Your task to perform on an android device: delete the emails in spam in the gmail app Image 0: 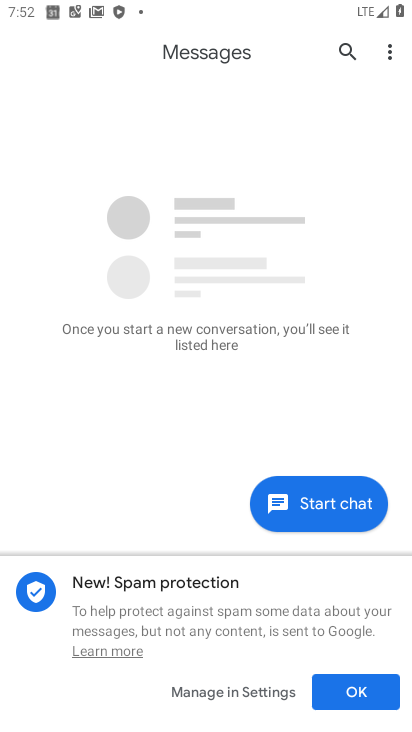
Step 0: press home button
Your task to perform on an android device: delete the emails in spam in the gmail app Image 1: 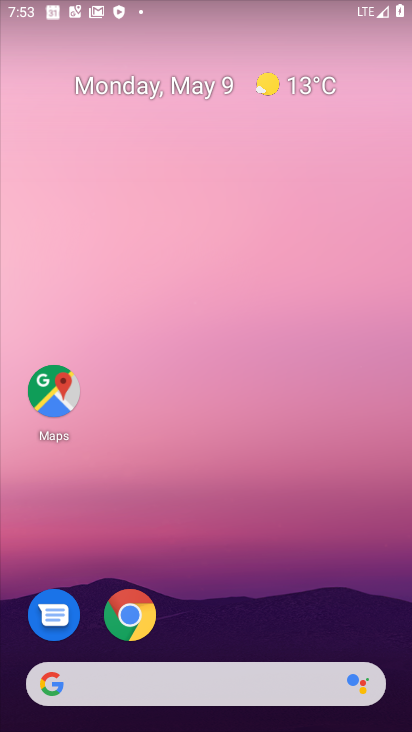
Step 1: drag from (228, 636) to (207, 3)
Your task to perform on an android device: delete the emails in spam in the gmail app Image 2: 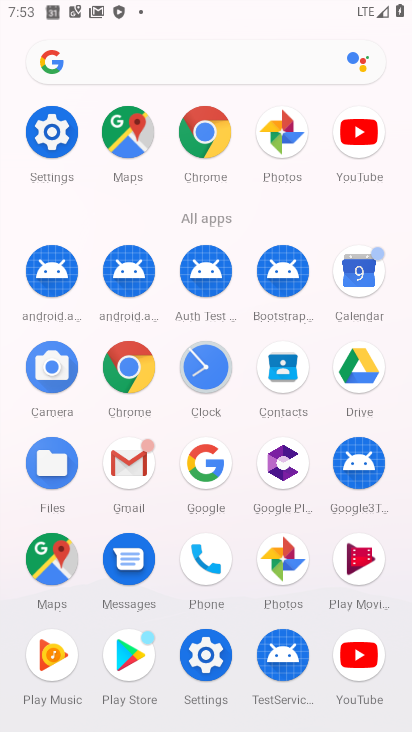
Step 2: click (123, 465)
Your task to perform on an android device: delete the emails in spam in the gmail app Image 3: 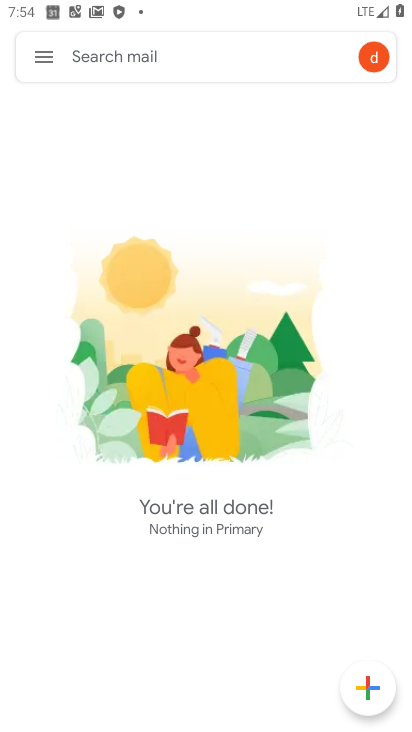
Step 3: click (36, 64)
Your task to perform on an android device: delete the emails in spam in the gmail app Image 4: 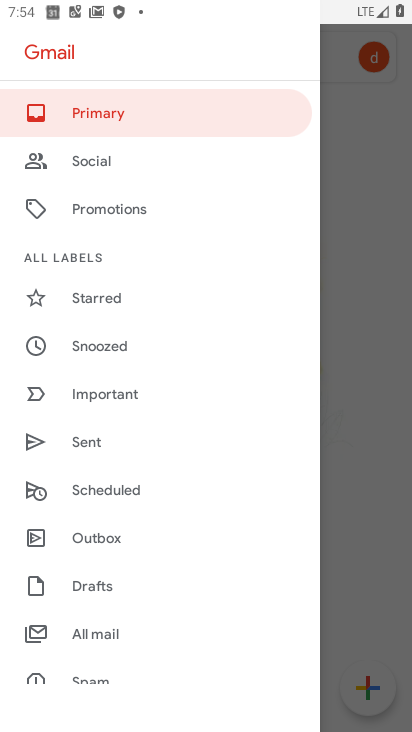
Step 4: click (78, 674)
Your task to perform on an android device: delete the emails in spam in the gmail app Image 5: 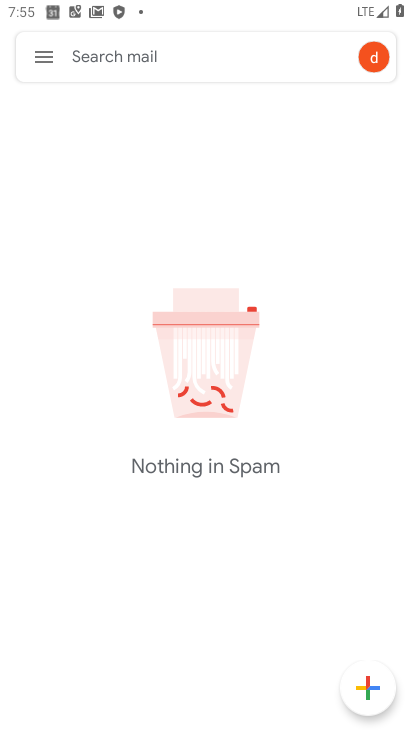
Step 5: task complete